Your task to perform on an android device: turn on javascript in the chrome app Image 0: 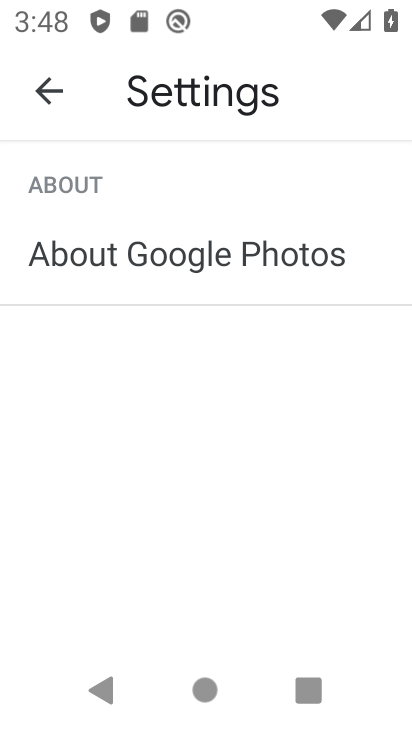
Step 0: press home button
Your task to perform on an android device: turn on javascript in the chrome app Image 1: 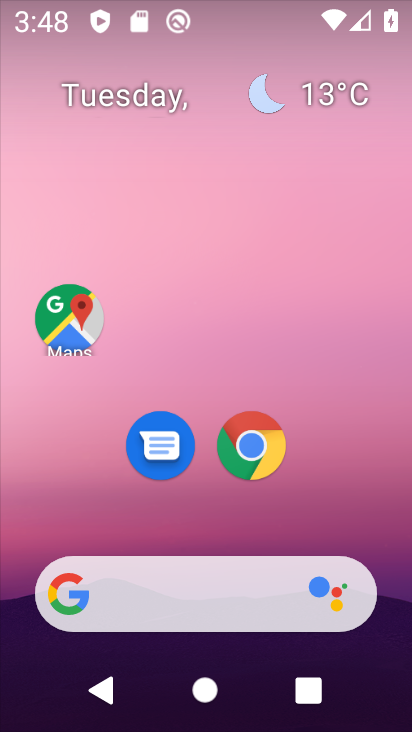
Step 1: click (256, 468)
Your task to perform on an android device: turn on javascript in the chrome app Image 2: 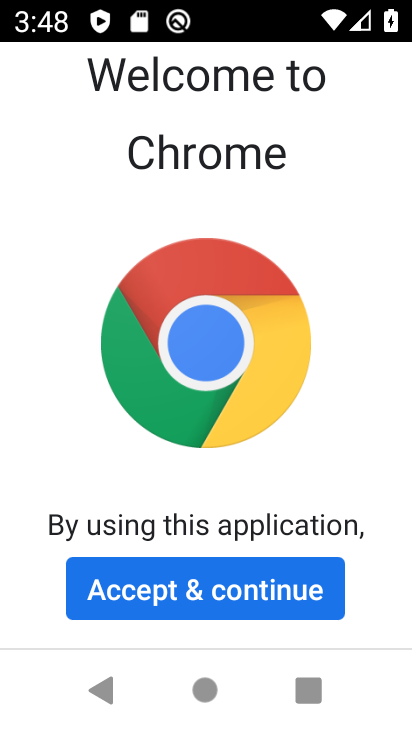
Step 2: click (298, 603)
Your task to perform on an android device: turn on javascript in the chrome app Image 3: 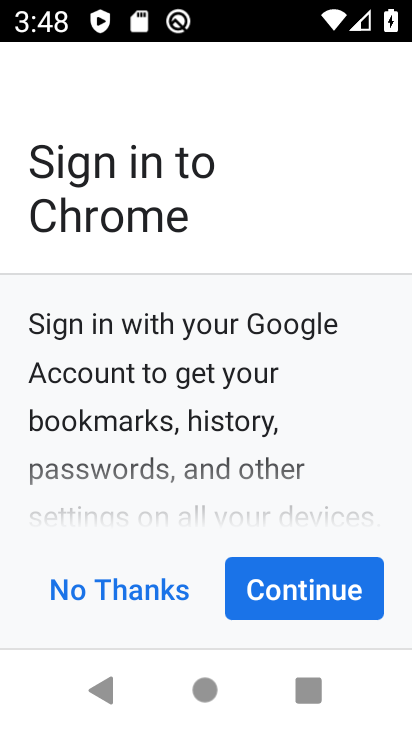
Step 3: click (276, 600)
Your task to perform on an android device: turn on javascript in the chrome app Image 4: 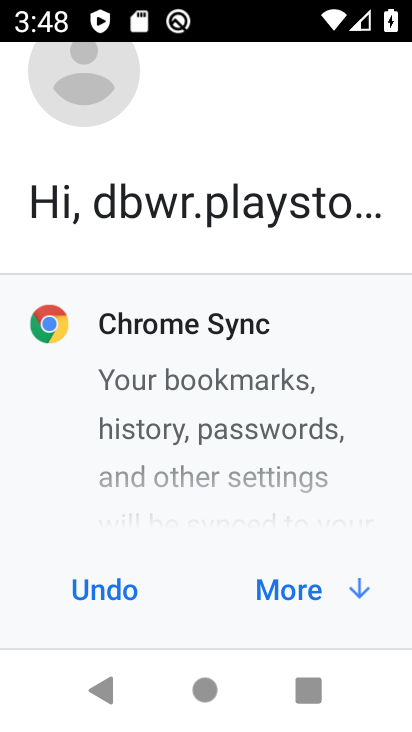
Step 4: click (334, 585)
Your task to perform on an android device: turn on javascript in the chrome app Image 5: 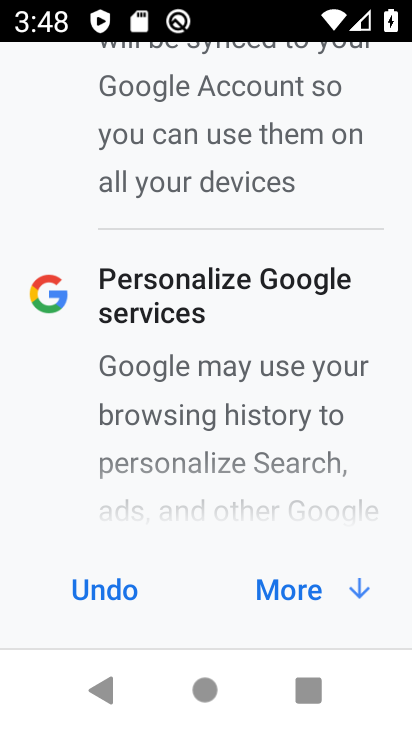
Step 5: click (331, 583)
Your task to perform on an android device: turn on javascript in the chrome app Image 6: 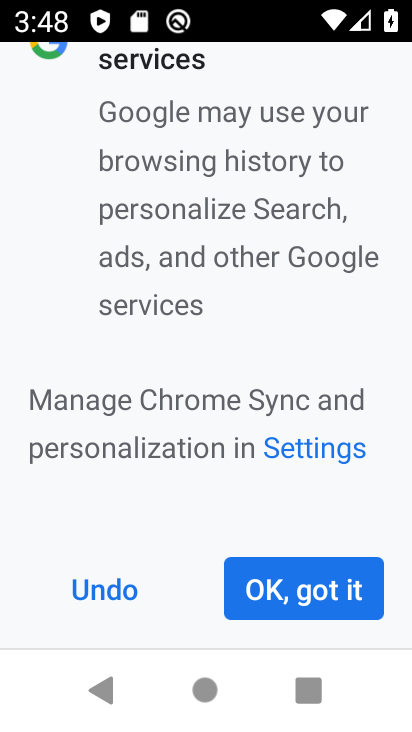
Step 6: click (295, 585)
Your task to perform on an android device: turn on javascript in the chrome app Image 7: 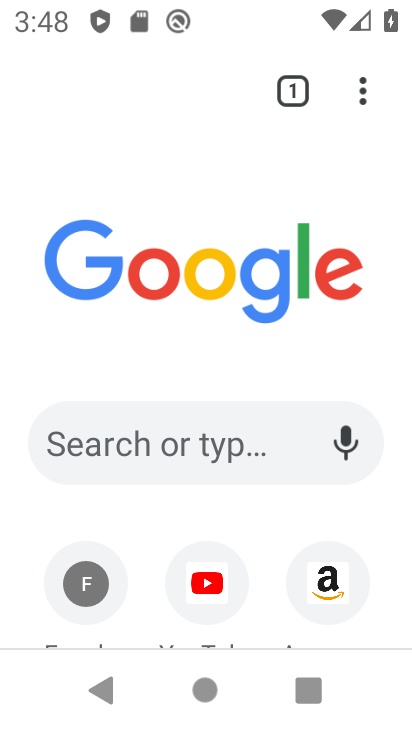
Step 7: click (354, 82)
Your task to perform on an android device: turn on javascript in the chrome app Image 8: 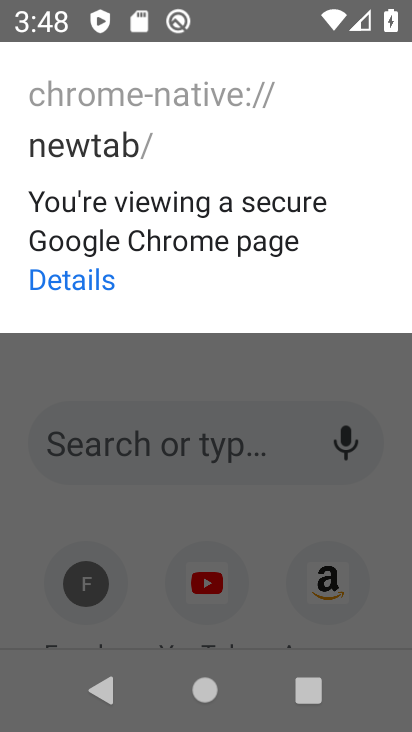
Step 8: click (295, 376)
Your task to perform on an android device: turn on javascript in the chrome app Image 9: 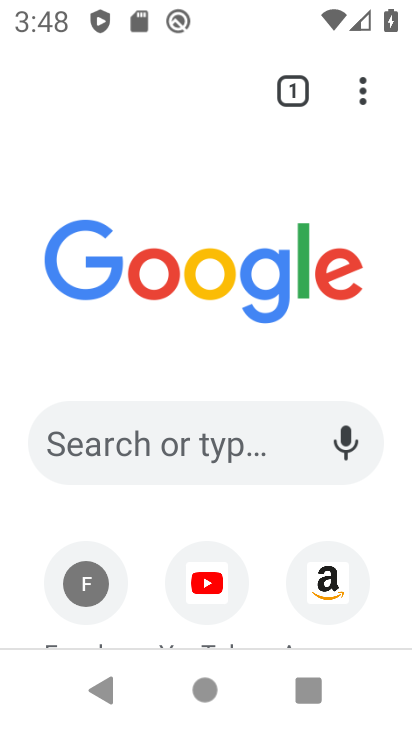
Step 9: click (366, 102)
Your task to perform on an android device: turn on javascript in the chrome app Image 10: 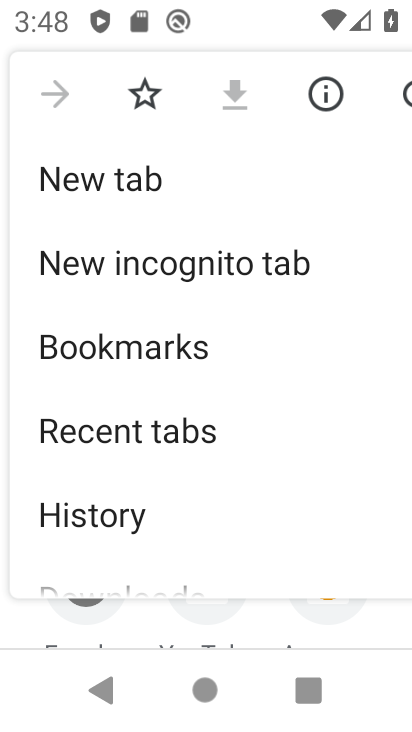
Step 10: drag from (266, 548) to (310, 107)
Your task to perform on an android device: turn on javascript in the chrome app Image 11: 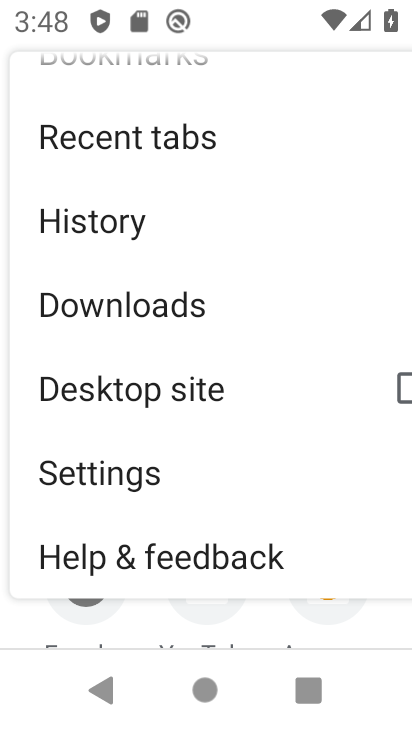
Step 11: click (139, 488)
Your task to perform on an android device: turn on javascript in the chrome app Image 12: 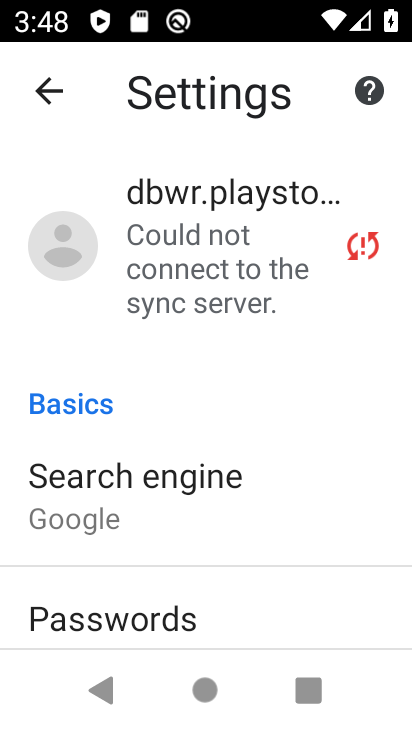
Step 12: drag from (271, 566) to (219, 122)
Your task to perform on an android device: turn on javascript in the chrome app Image 13: 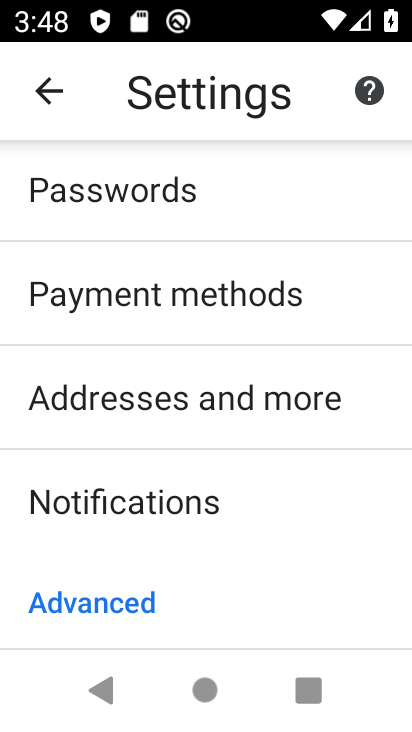
Step 13: drag from (255, 592) to (268, 245)
Your task to perform on an android device: turn on javascript in the chrome app Image 14: 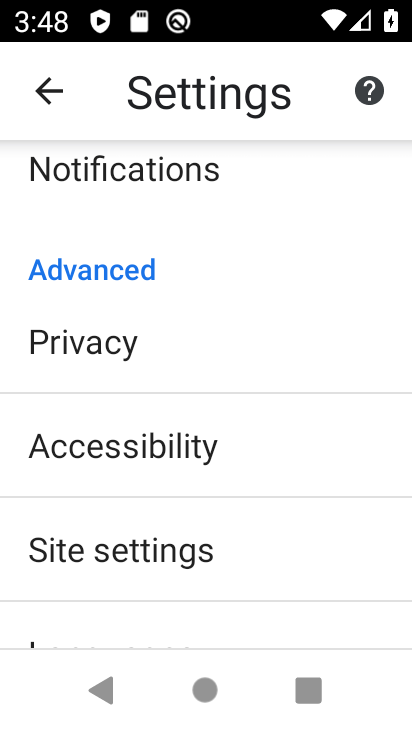
Step 14: click (215, 568)
Your task to perform on an android device: turn on javascript in the chrome app Image 15: 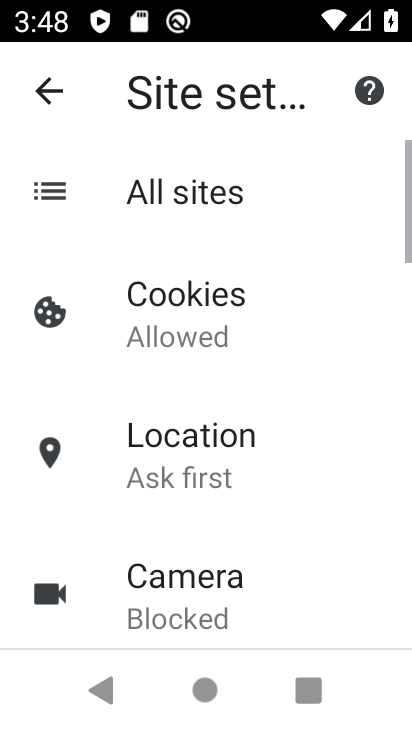
Step 15: drag from (215, 563) to (211, 169)
Your task to perform on an android device: turn on javascript in the chrome app Image 16: 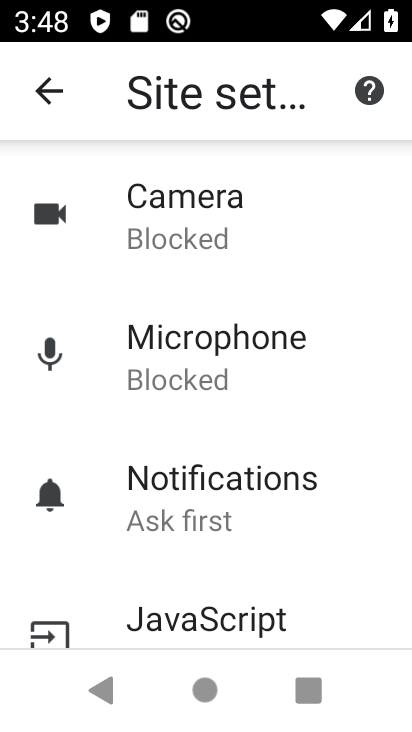
Step 16: click (204, 617)
Your task to perform on an android device: turn on javascript in the chrome app Image 17: 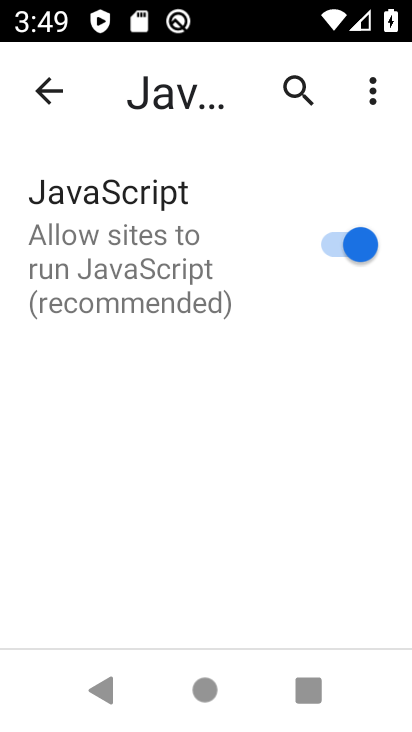
Step 17: task complete